Your task to perform on an android device: Turn on the flashlight Image 0: 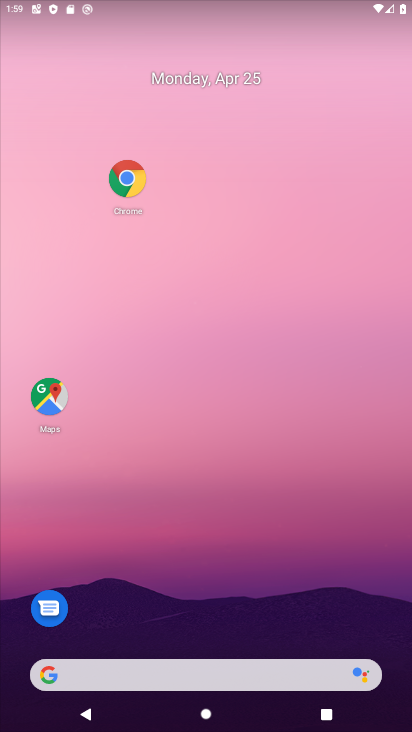
Step 0: drag from (162, 389) to (178, 298)
Your task to perform on an android device: Turn on the flashlight Image 1: 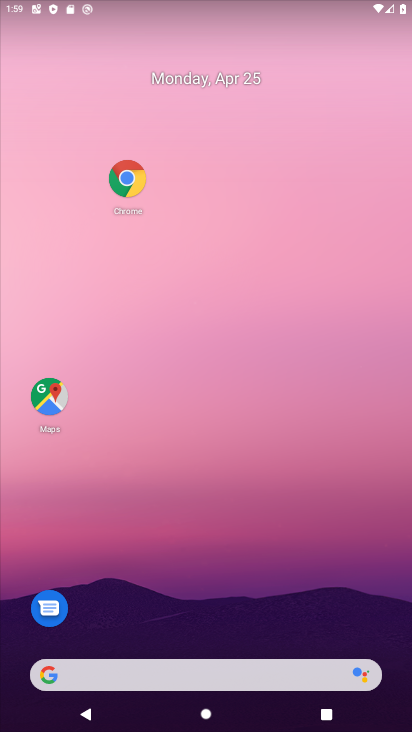
Step 1: drag from (183, 355) to (191, 246)
Your task to perform on an android device: Turn on the flashlight Image 2: 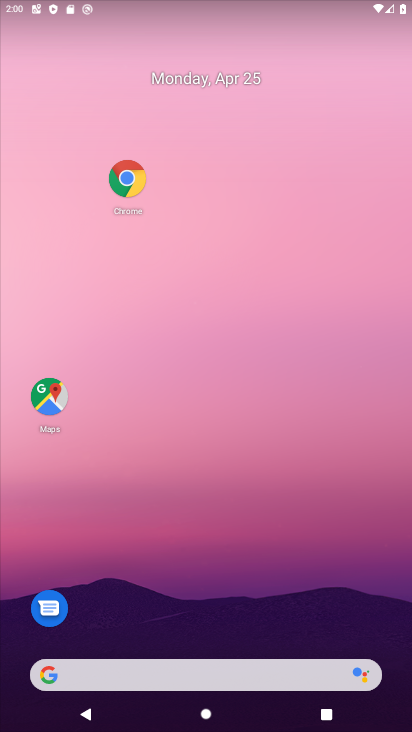
Step 2: drag from (123, 617) to (101, 195)
Your task to perform on an android device: Turn on the flashlight Image 3: 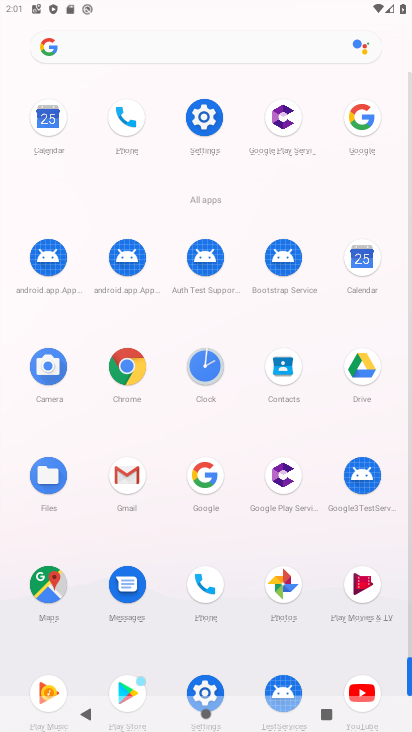
Step 3: click (211, 681)
Your task to perform on an android device: Turn on the flashlight Image 4: 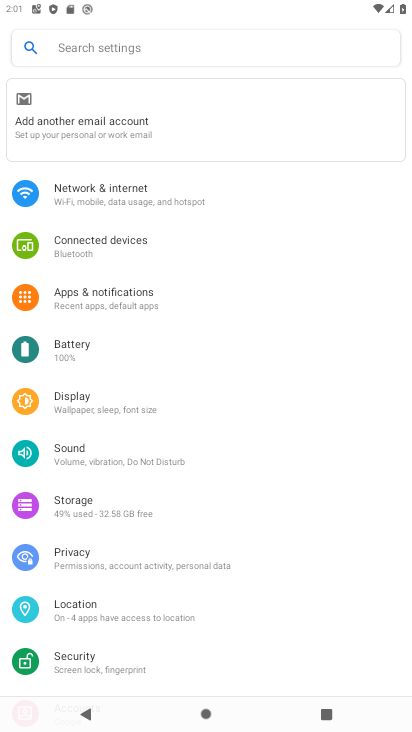
Step 4: click (103, 408)
Your task to perform on an android device: Turn on the flashlight Image 5: 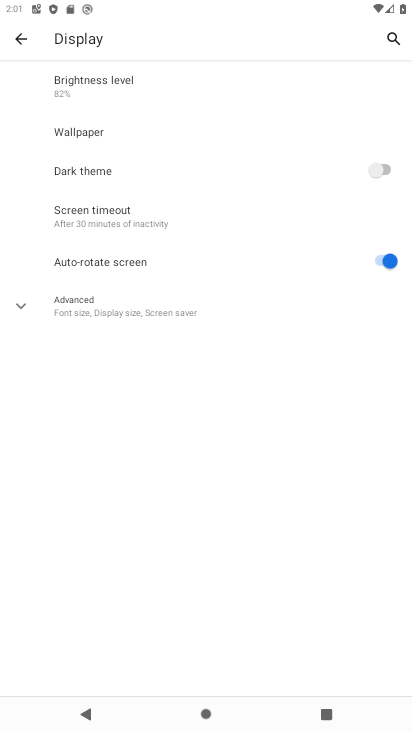
Step 5: task complete